Your task to perform on an android device: Is it going to rain tomorrow? Image 0: 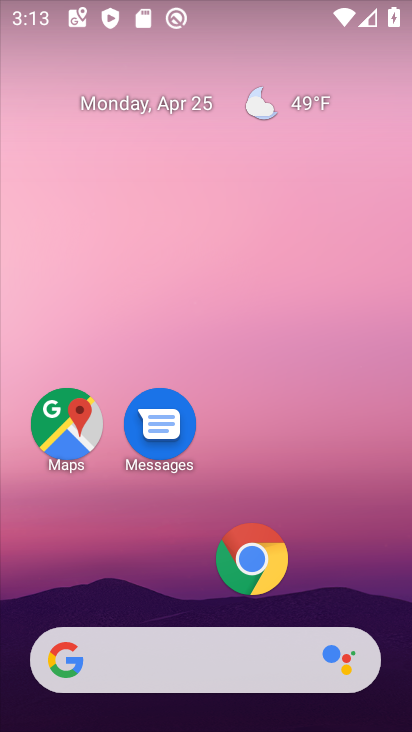
Step 0: click (209, 656)
Your task to perform on an android device: Is it going to rain tomorrow? Image 1: 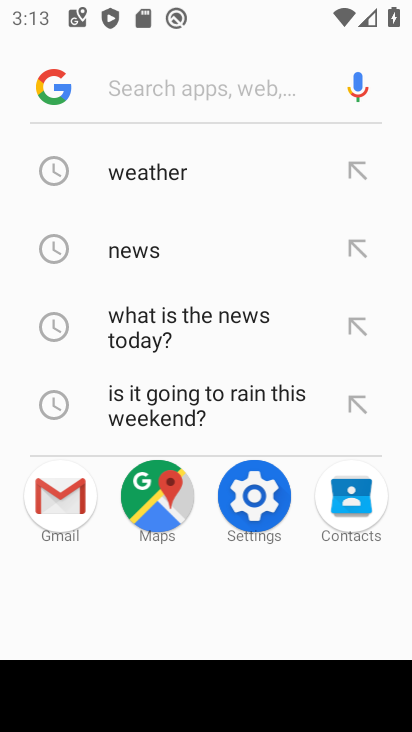
Step 1: type "Is it going to rain tomorrow?"
Your task to perform on an android device: Is it going to rain tomorrow? Image 2: 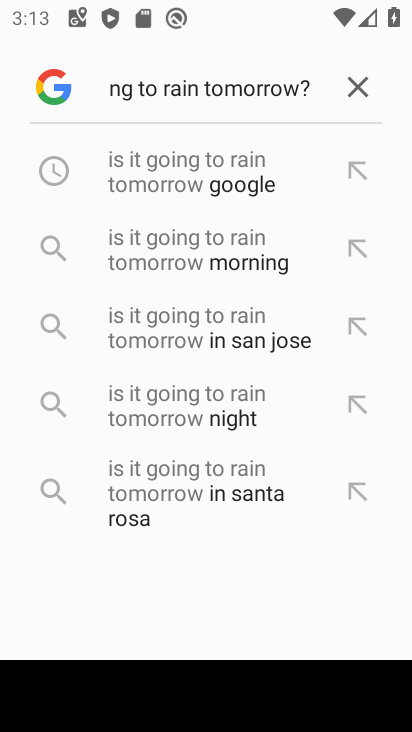
Step 2: click (219, 168)
Your task to perform on an android device: Is it going to rain tomorrow? Image 3: 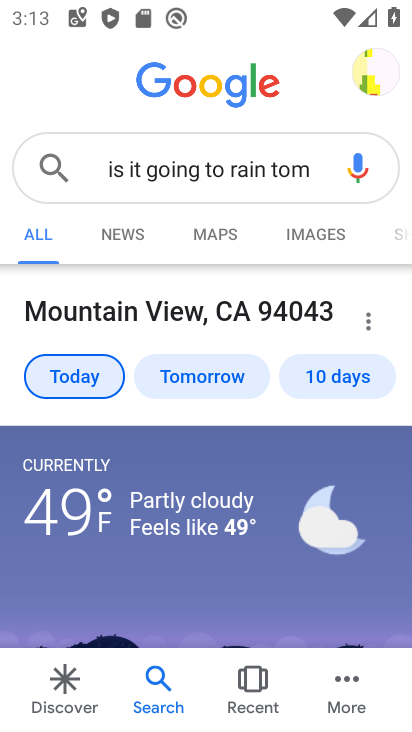
Step 3: task complete